Your task to perform on an android device: When is my next meeting? Image 0: 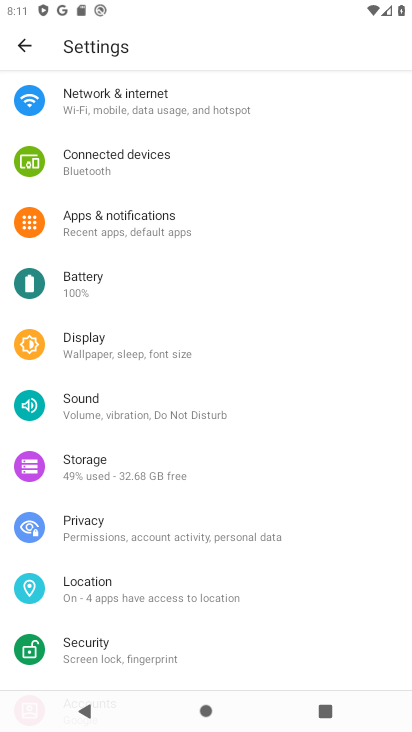
Step 0: click (24, 44)
Your task to perform on an android device: When is my next meeting? Image 1: 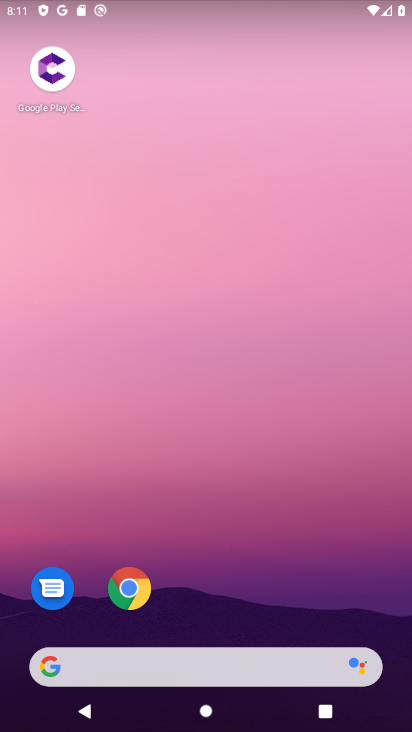
Step 1: drag from (240, 665) to (191, 250)
Your task to perform on an android device: When is my next meeting? Image 2: 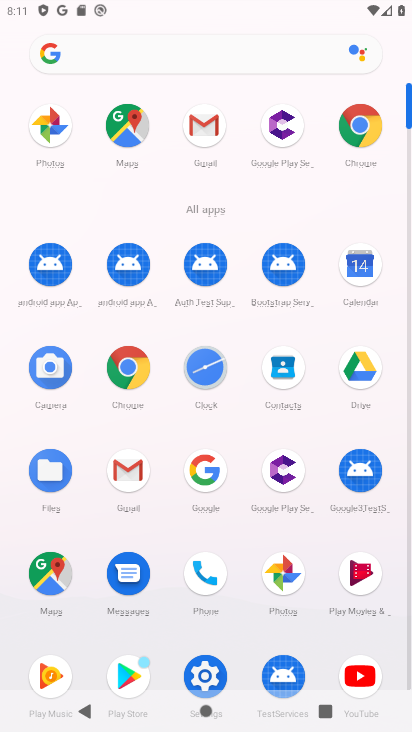
Step 2: click (363, 268)
Your task to perform on an android device: When is my next meeting? Image 3: 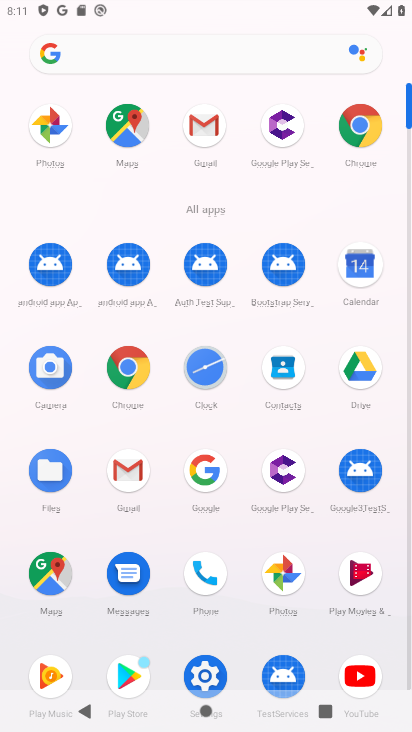
Step 3: click (367, 269)
Your task to perform on an android device: When is my next meeting? Image 4: 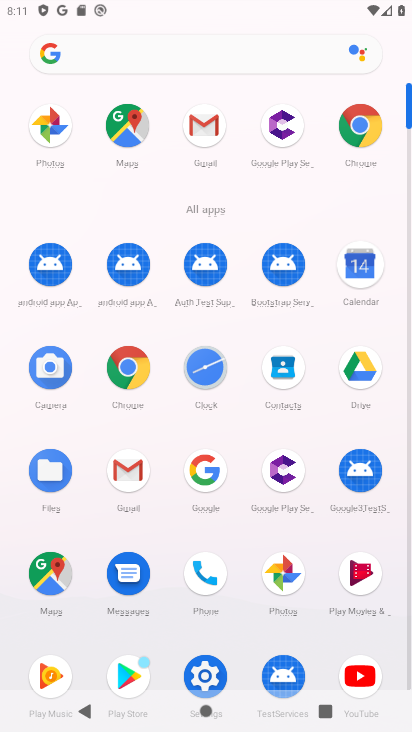
Step 4: click (364, 265)
Your task to perform on an android device: When is my next meeting? Image 5: 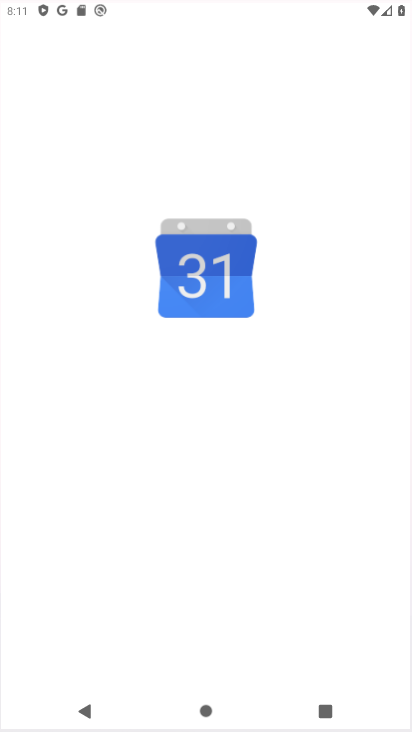
Step 5: click (365, 261)
Your task to perform on an android device: When is my next meeting? Image 6: 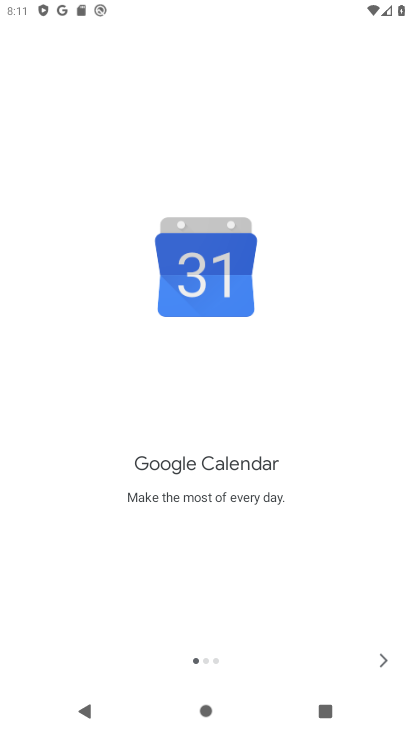
Step 6: click (386, 661)
Your task to perform on an android device: When is my next meeting? Image 7: 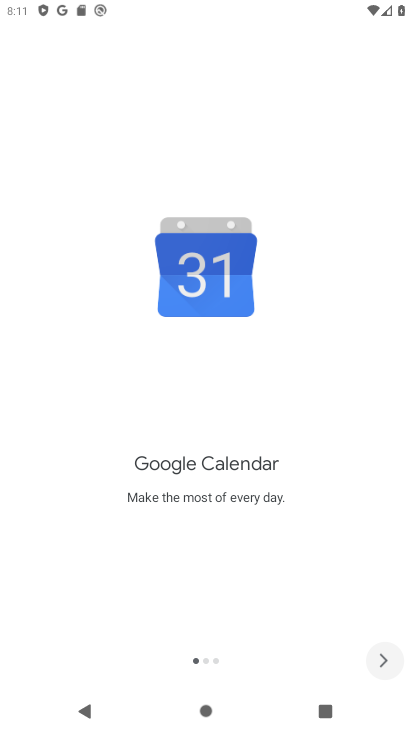
Step 7: click (386, 662)
Your task to perform on an android device: When is my next meeting? Image 8: 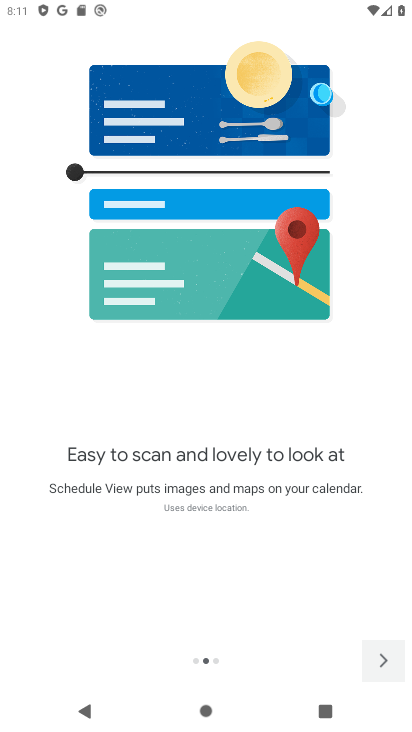
Step 8: click (385, 666)
Your task to perform on an android device: When is my next meeting? Image 9: 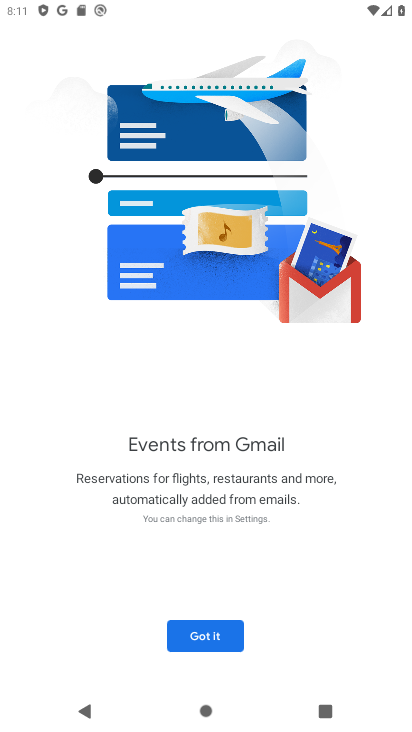
Step 9: click (213, 633)
Your task to perform on an android device: When is my next meeting? Image 10: 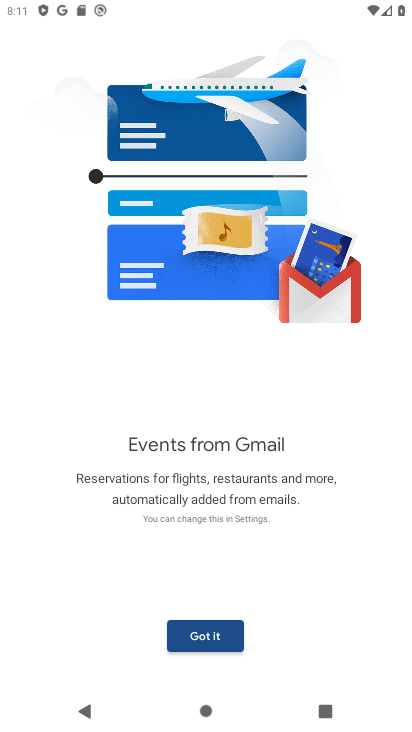
Step 10: click (213, 631)
Your task to perform on an android device: When is my next meeting? Image 11: 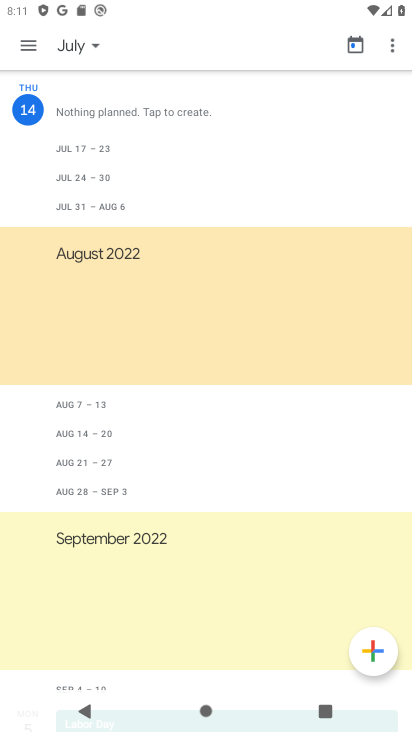
Step 11: click (92, 150)
Your task to perform on an android device: When is my next meeting? Image 12: 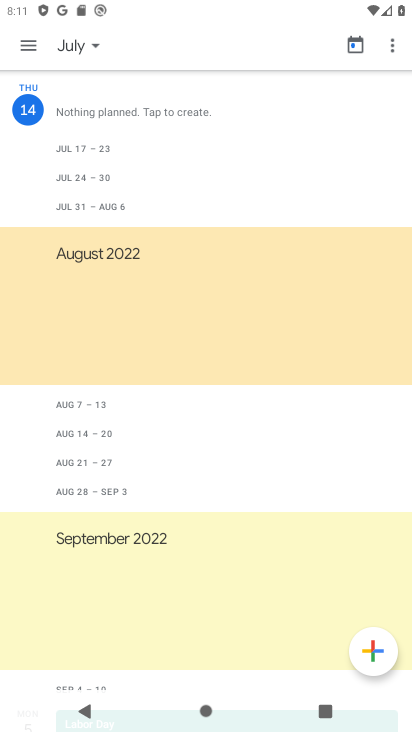
Step 12: click (91, 41)
Your task to perform on an android device: When is my next meeting? Image 13: 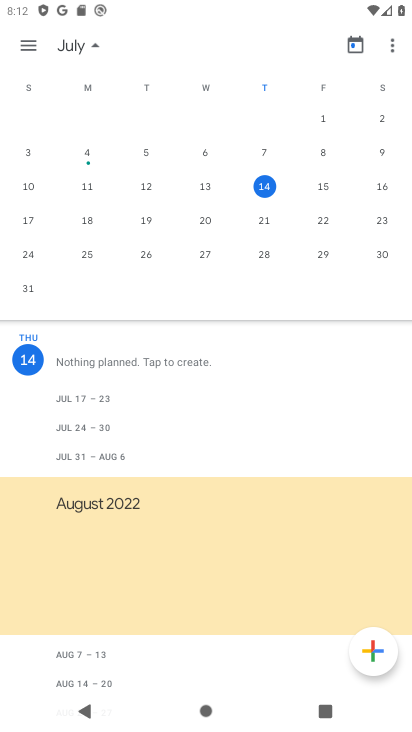
Step 13: click (320, 182)
Your task to perform on an android device: When is my next meeting? Image 14: 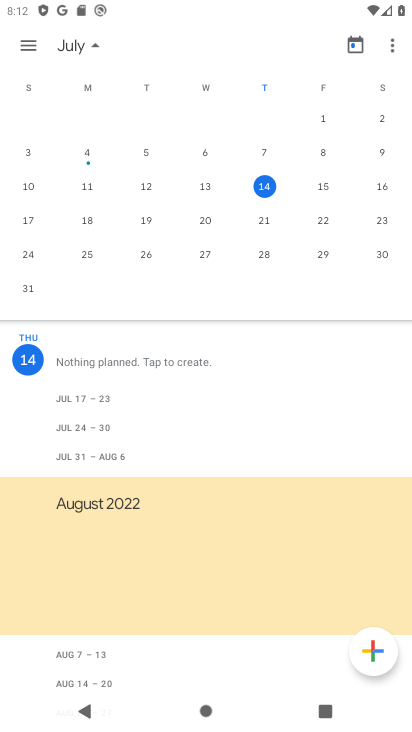
Step 14: click (320, 194)
Your task to perform on an android device: When is my next meeting? Image 15: 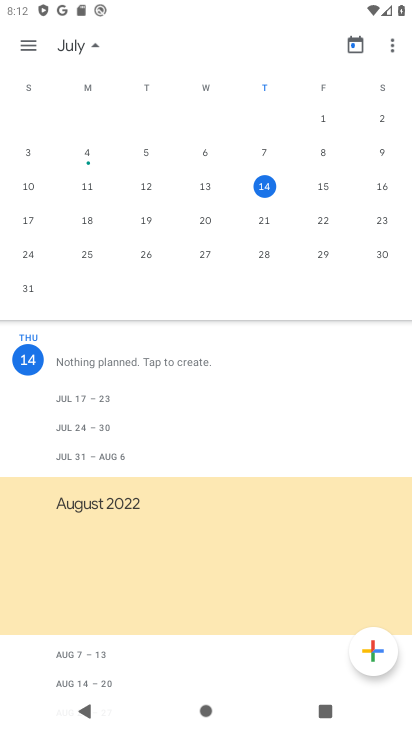
Step 15: click (320, 183)
Your task to perform on an android device: When is my next meeting? Image 16: 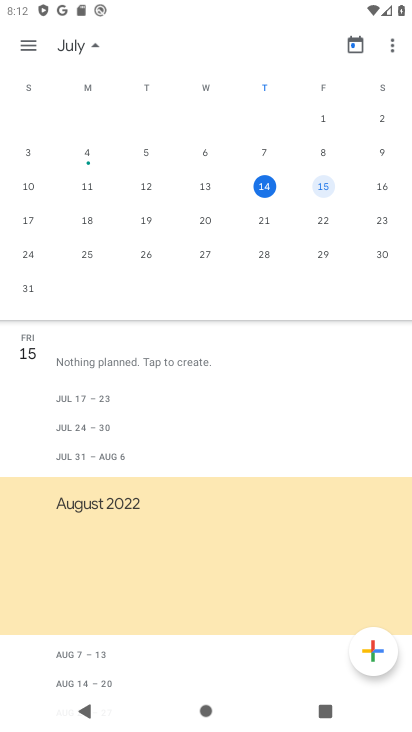
Step 16: click (322, 183)
Your task to perform on an android device: When is my next meeting? Image 17: 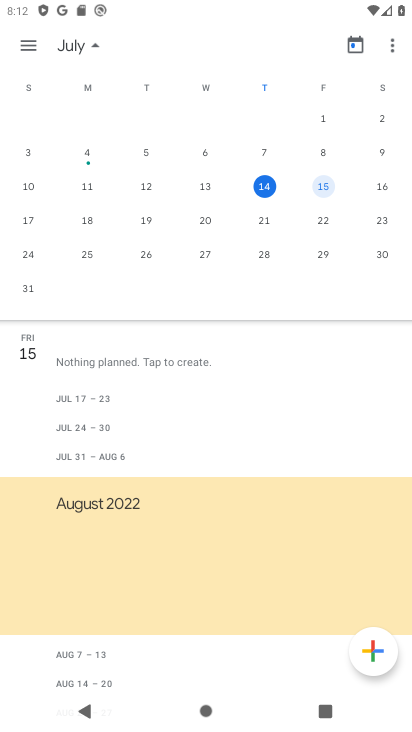
Step 17: click (323, 186)
Your task to perform on an android device: When is my next meeting? Image 18: 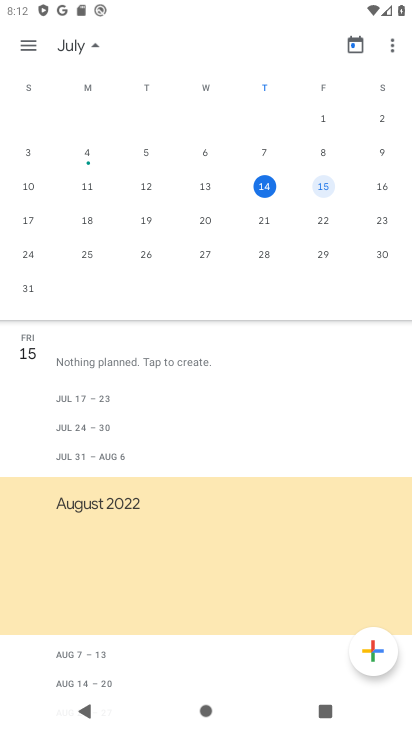
Step 18: task complete